Your task to perform on an android device: open a bookmark in the chrome app Image 0: 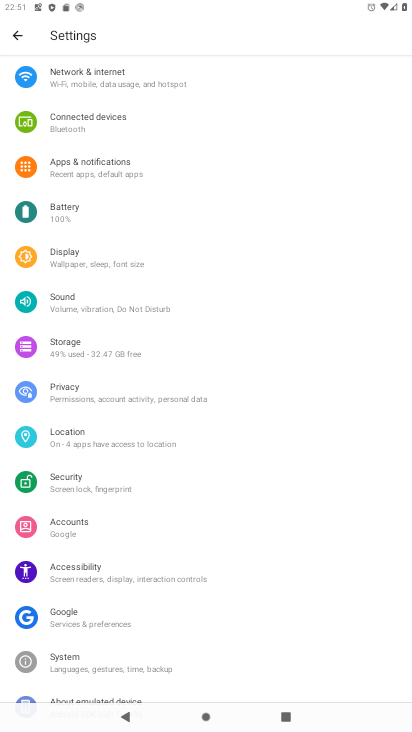
Step 0: press home button
Your task to perform on an android device: open a bookmark in the chrome app Image 1: 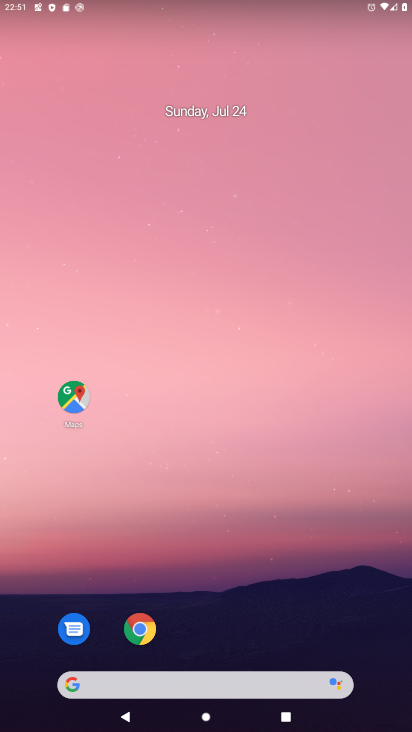
Step 1: drag from (173, 648) to (283, 190)
Your task to perform on an android device: open a bookmark in the chrome app Image 2: 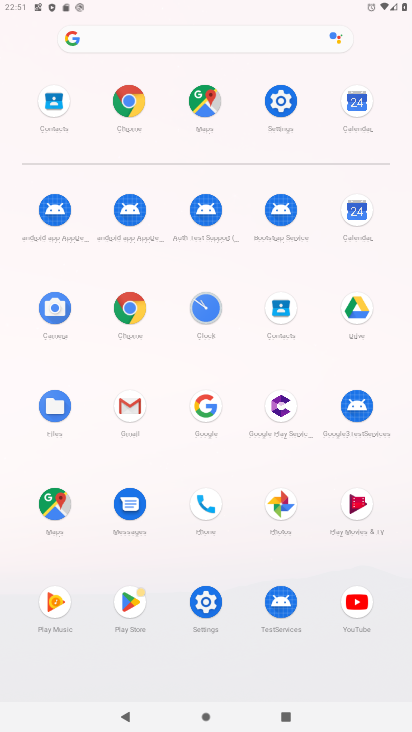
Step 2: click (128, 311)
Your task to perform on an android device: open a bookmark in the chrome app Image 3: 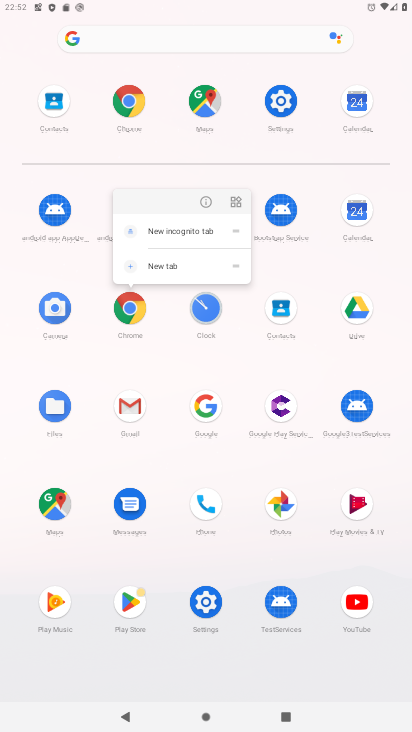
Step 3: click (207, 201)
Your task to perform on an android device: open a bookmark in the chrome app Image 4: 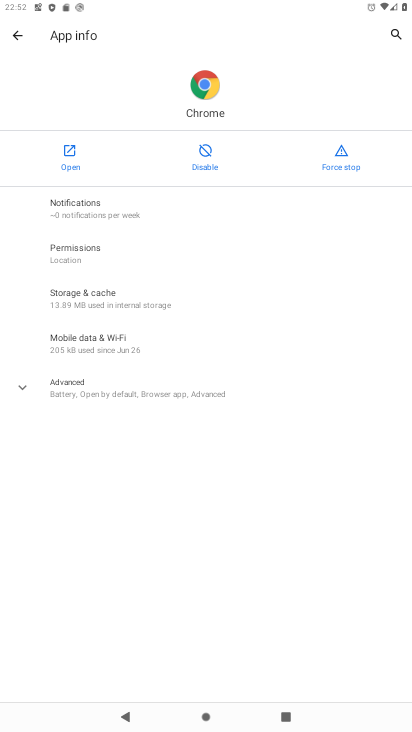
Step 4: click (76, 163)
Your task to perform on an android device: open a bookmark in the chrome app Image 5: 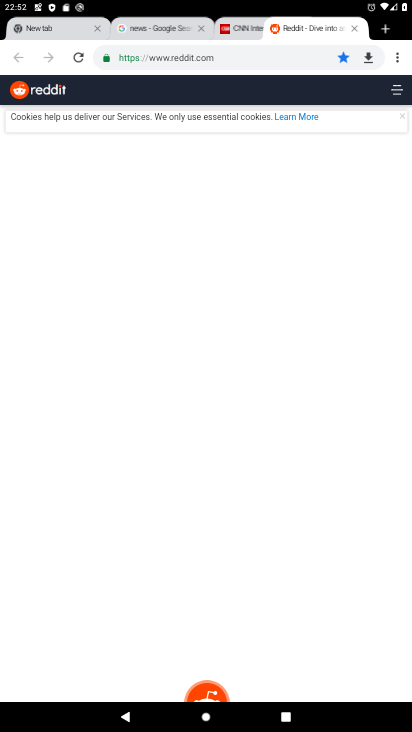
Step 5: task complete